Your task to perform on an android device: open app "Viber Messenger" (install if not already installed) Image 0: 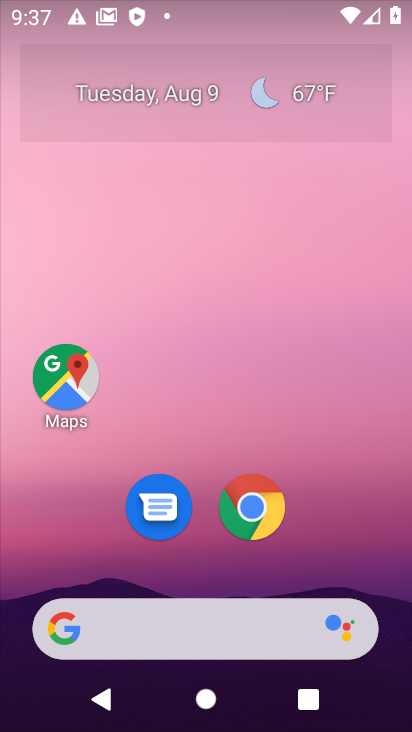
Step 0: drag from (111, 696) to (43, 201)
Your task to perform on an android device: open app "Viber Messenger" (install if not already installed) Image 1: 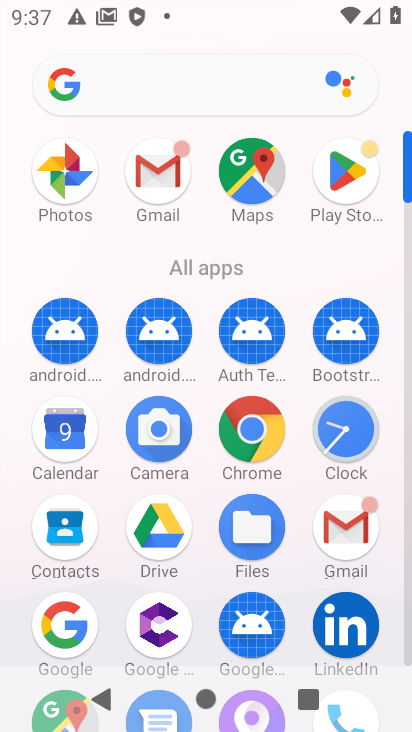
Step 1: click (349, 166)
Your task to perform on an android device: open app "Viber Messenger" (install if not already installed) Image 2: 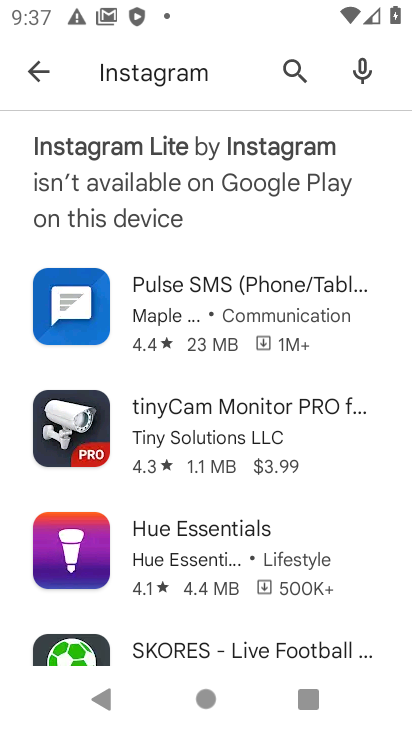
Step 2: click (47, 76)
Your task to perform on an android device: open app "Viber Messenger" (install if not already installed) Image 3: 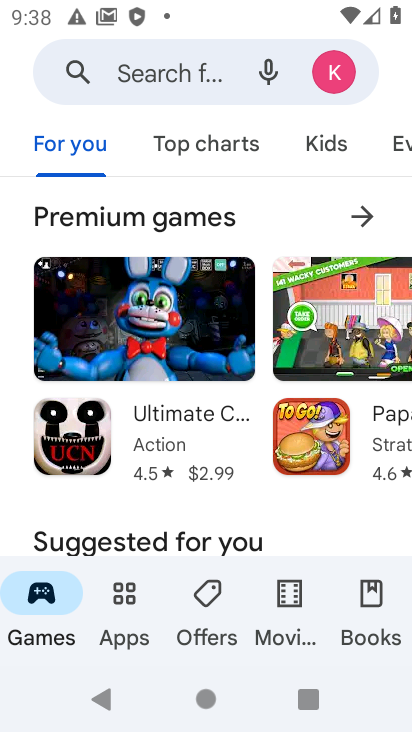
Step 3: click (167, 61)
Your task to perform on an android device: open app "Viber Messenger" (install if not already installed) Image 4: 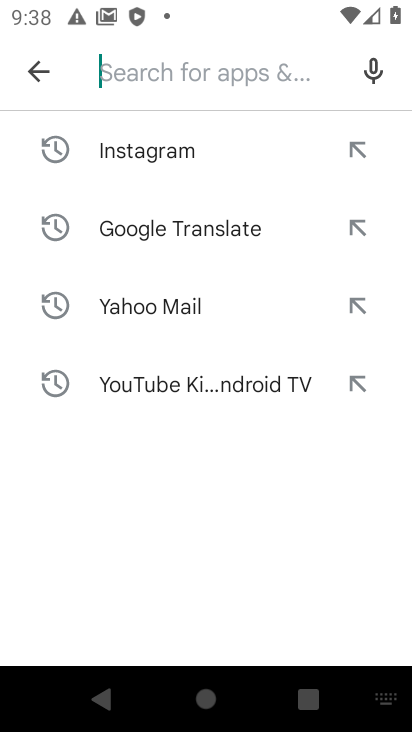
Step 4: type "Viber Messenger"
Your task to perform on an android device: open app "Viber Messenger" (install if not already installed) Image 5: 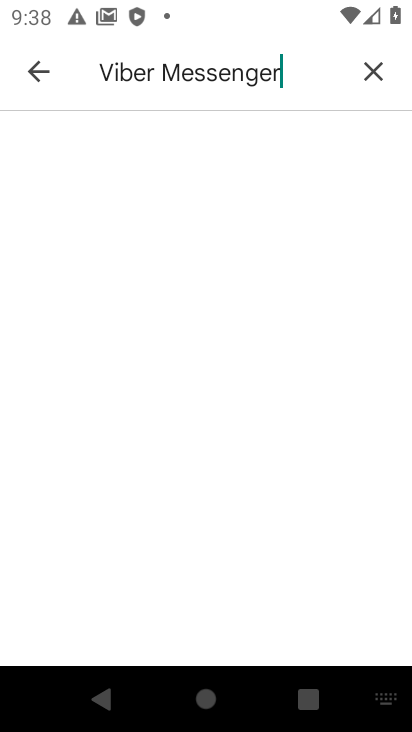
Step 5: press enter
Your task to perform on an android device: open app "Viber Messenger" (install if not already installed) Image 6: 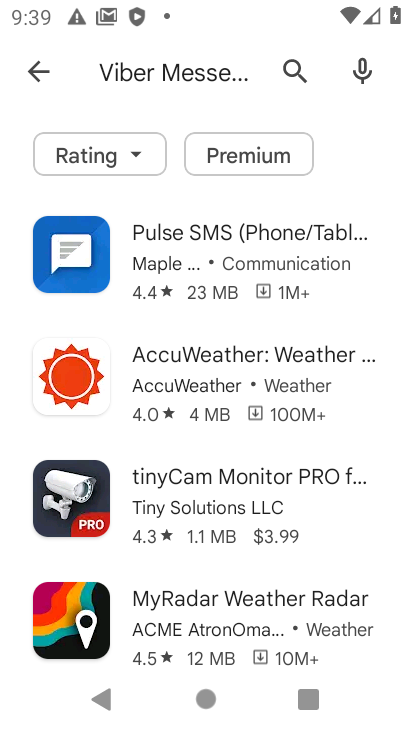
Step 6: click (38, 66)
Your task to perform on an android device: open app "Viber Messenger" (install if not already installed) Image 7: 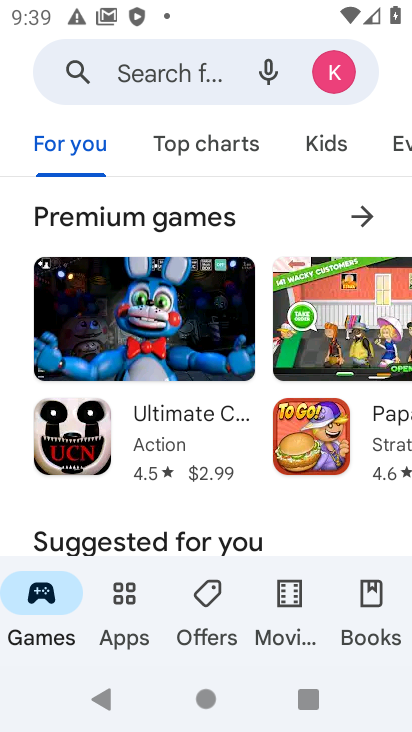
Step 7: press home button
Your task to perform on an android device: open app "Viber Messenger" (install if not already installed) Image 8: 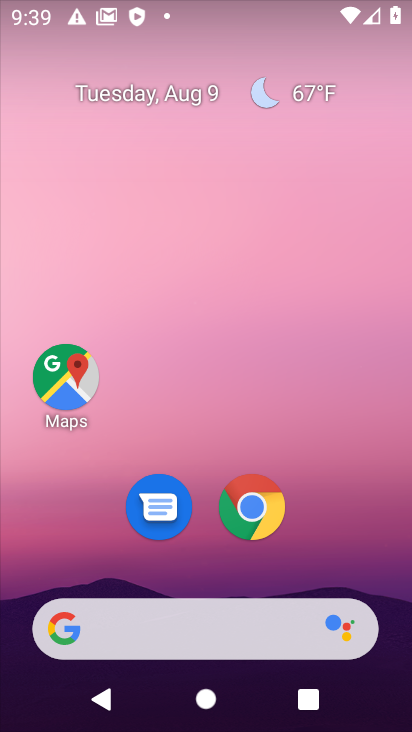
Step 8: drag from (270, 617) to (282, 183)
Your task to perform on an android device: open app "Viber Messenger" (install if not already installed) Image 9: 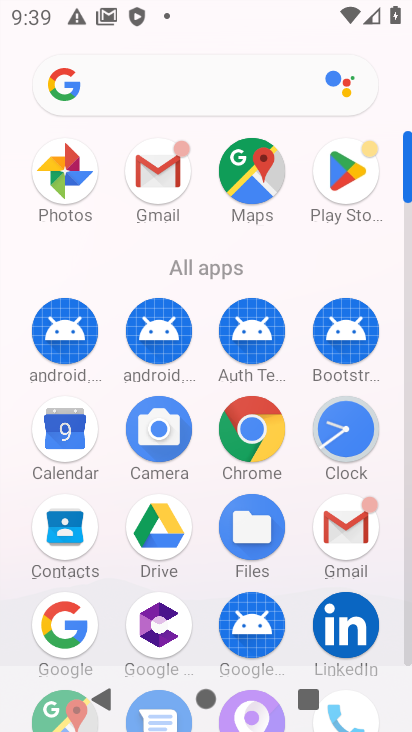
Step 9: click (353, 195)
Your task to perform on an android device: open app "Viber Messenger" (install if not already installed) Image 10: 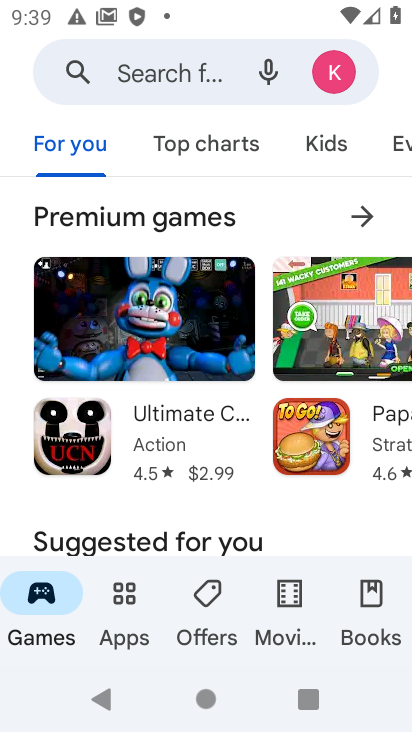
Step 10: click (186, 87)
Your task to perform on an android device: open app "Viber Messenger" (install if not already installed) Image 11: 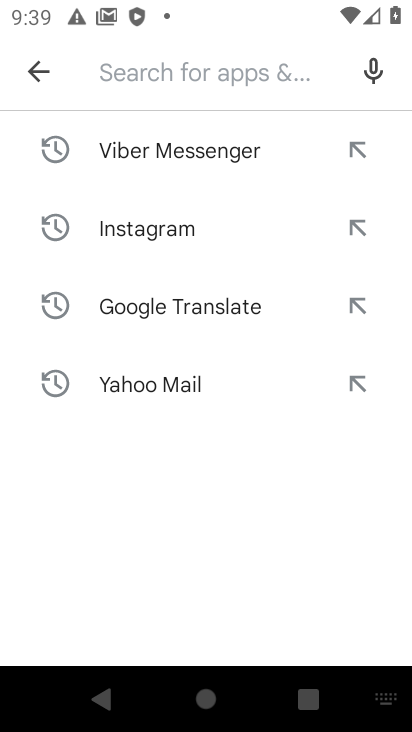
Step 11: click (240, 153)
Your task to perform on an android device: open app "Viber Messenger" (install if not already installed) Image 12: 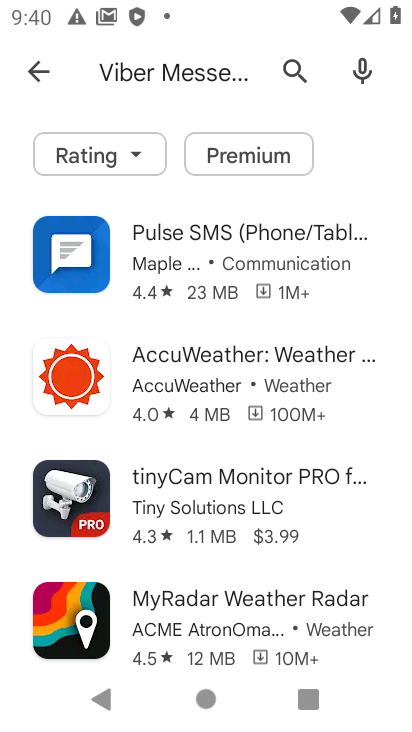
Step 12: task complete